Your task to perform on an android device: turn off sleep mode Image 0: 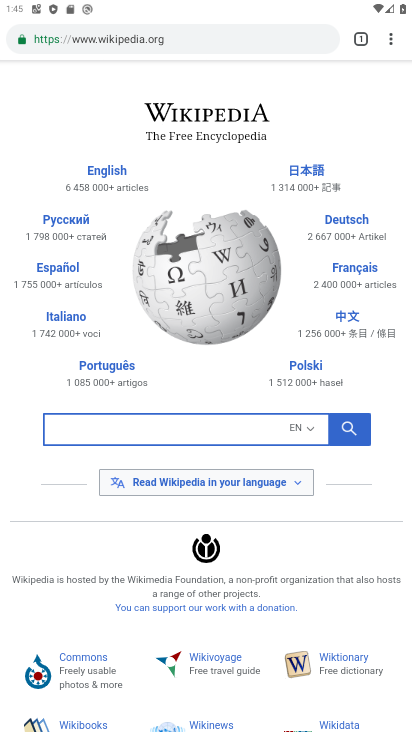
Step 0: press home button
Your task to perform on an android device: turn off sleep mode Image 1: 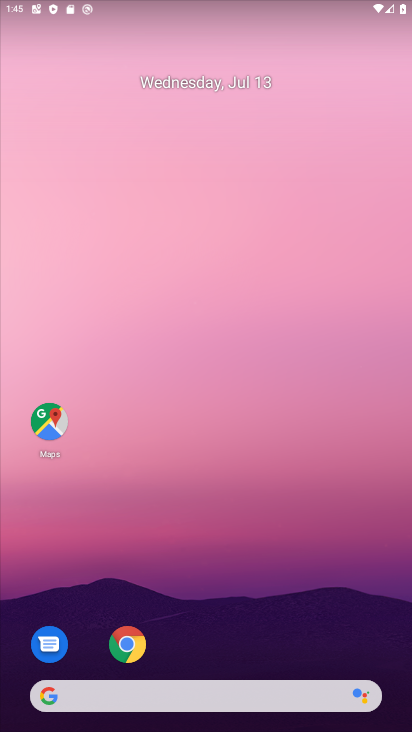
Step 1: drag from (238, 640) to (302, 143)
Your task to perform on an android device: turn off sleep mode Image 2: 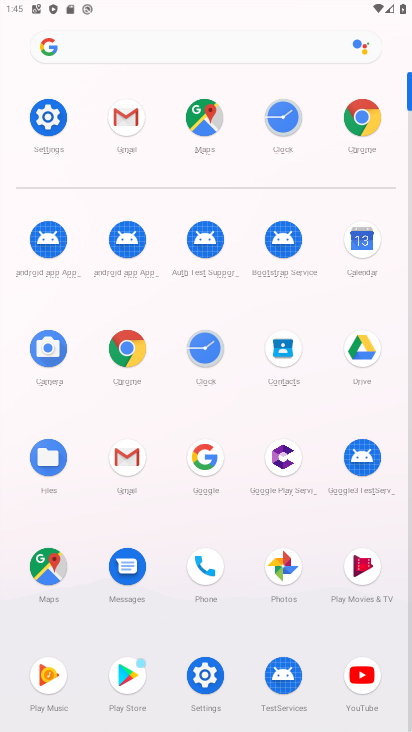
Step 2: click (195, 668)
Your task to perform on an android device: turn off sleep mode Image 3: 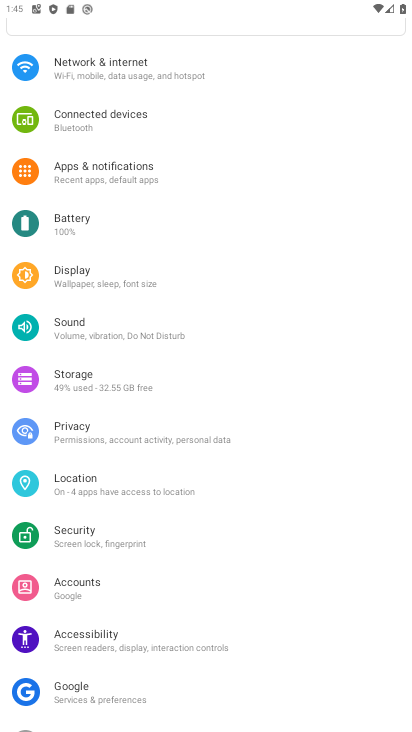
Step 3: click (92, 291)
Your task to perform on an android device: turn off sleep mode Image 4: 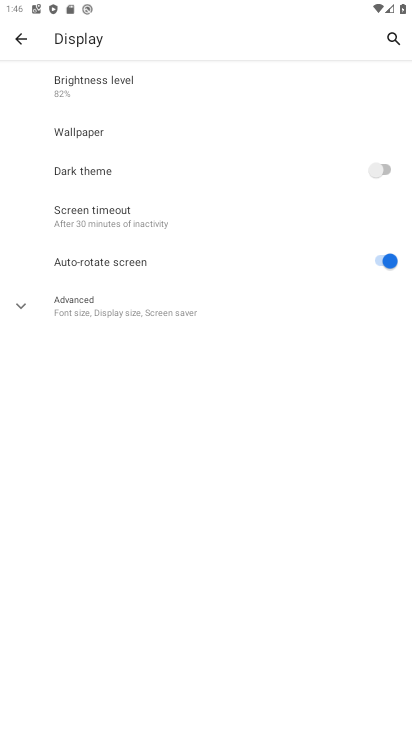
Step 4: click (159, 291)
Your task to perform on an android device: turn off sleep mode Image 5: 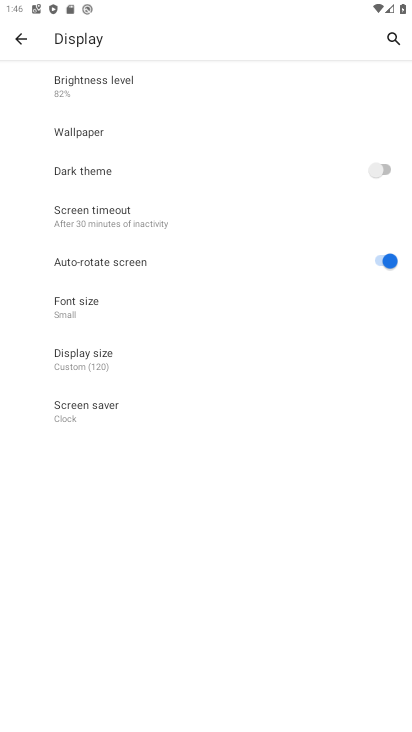
Step 5: task complete